Your task to perform on an android device: What's on my calendar today? Image 0: 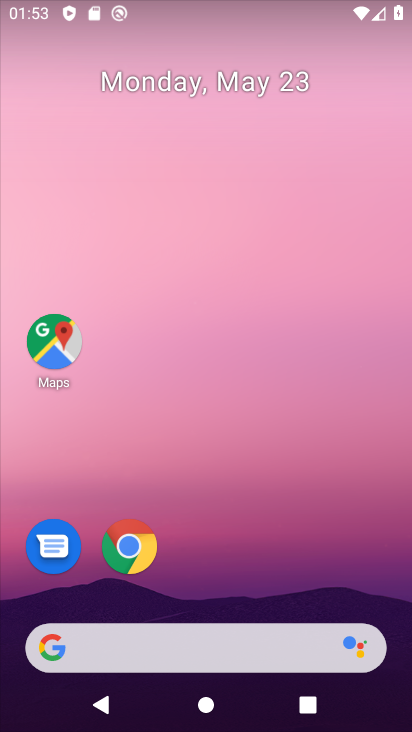
Step 0: drag from (220, 548) to (305, 60)
Your task to perform on an android device: What's on my calendar today? Image 1: 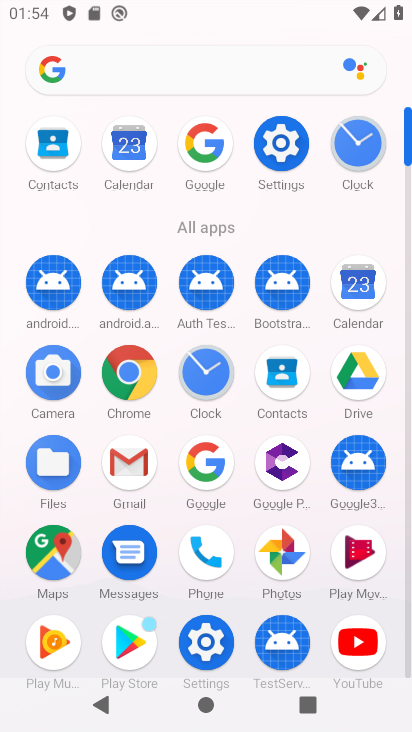
Step 1: click (357, 292)
Your task to perform on an android device: What's on my calendar today? Image 2: 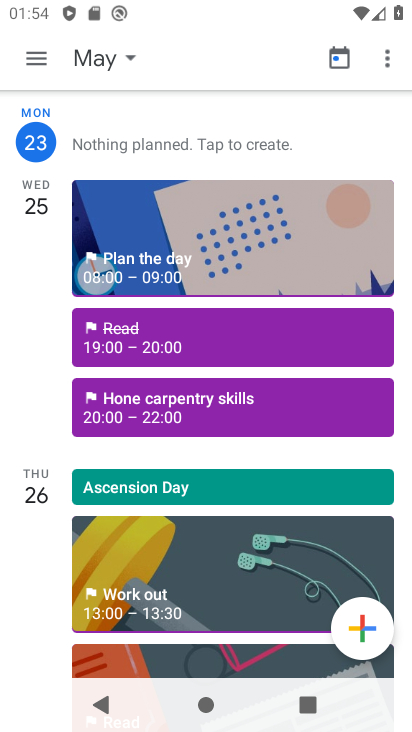
Step 2: task complete